Your task to perform on an android device: Open wifi settings Image 0: 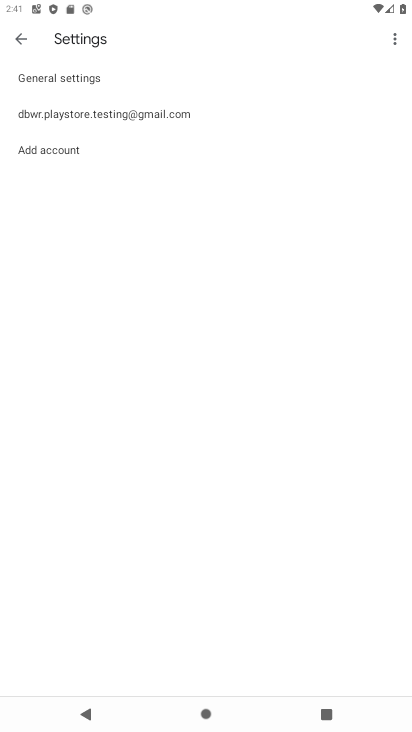
Step 0: press home button
Your task to perform on an android device: Open wifi settings Image 1: 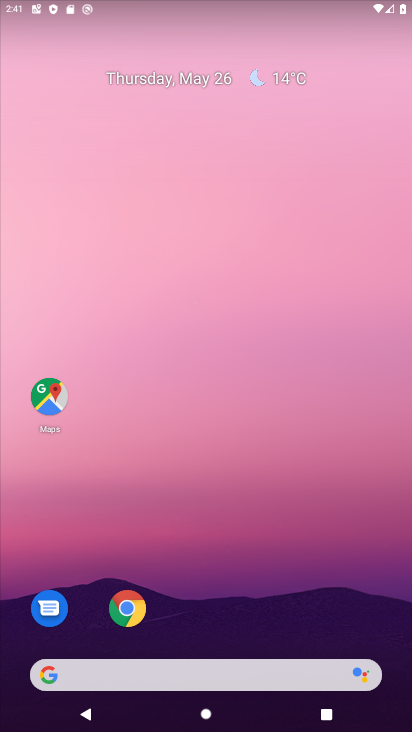
Step 1: drag from (231, 574) to (234, 51)
Your task to perform on an android device: Open wifi settings Image 2: 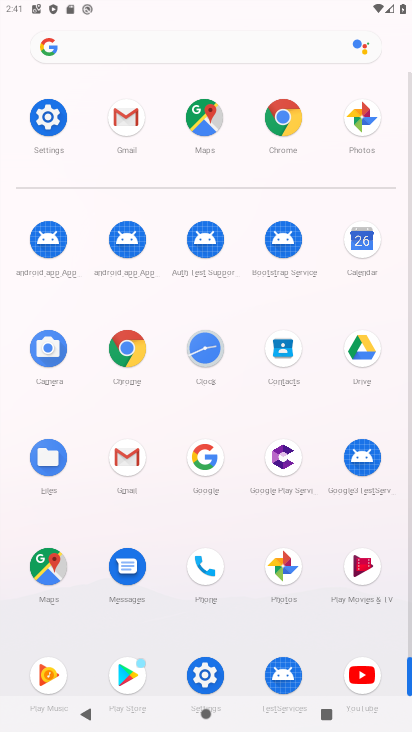
Step 2: click (41, 114)
Your task to perform on an android device: Open wifi settings Image 3: 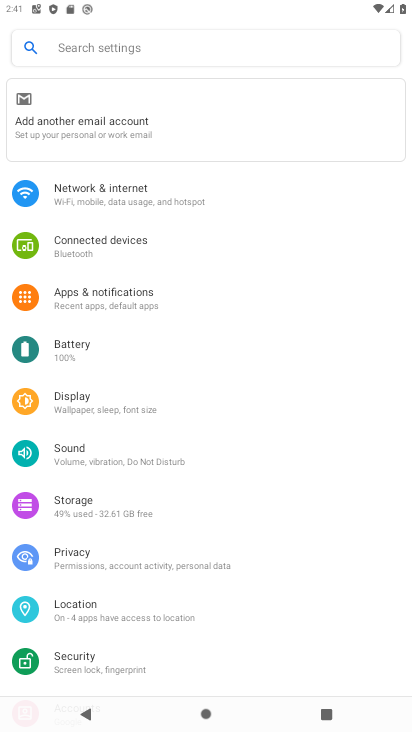
Step 3: click (103, 190)
Your task to perform on an android device: Open wifi settings Image 4: 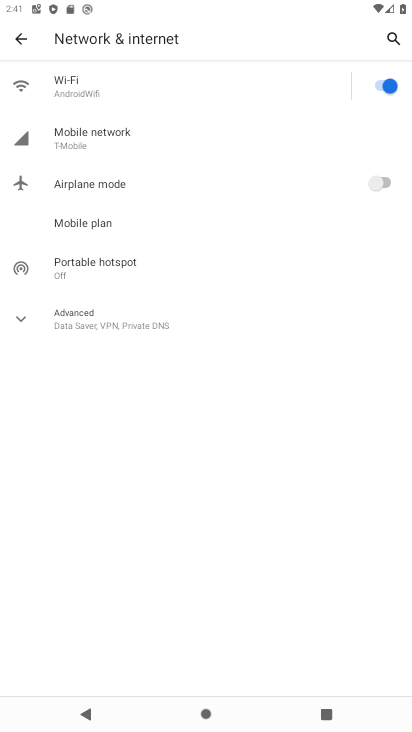
Step 4: task complete